Your task to perform on an android device: allow cookies in the chrome app Image 0: 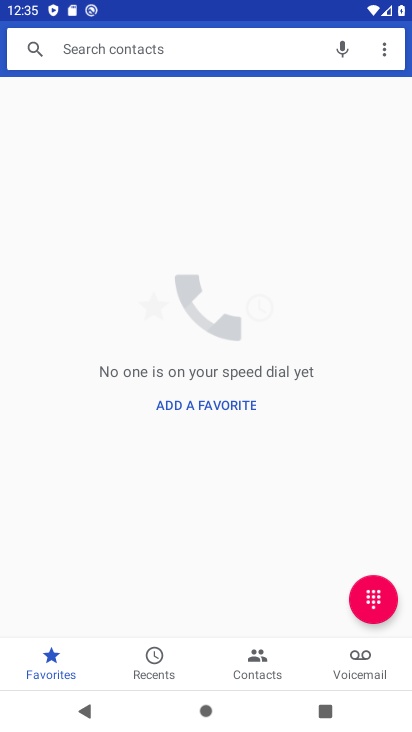
Step 0: click (401, 406)
Your task to perform on an android device: allow cookies in the chrome app Image 1: 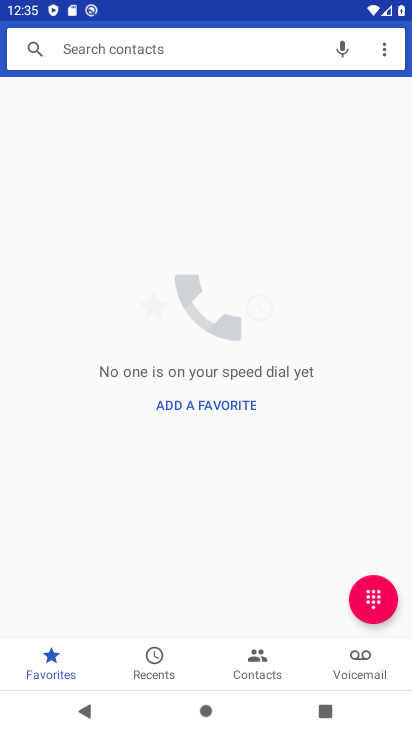
Step 1: press home button
Your task to perform on an android device: allow cookies in the chrome app Image 2: 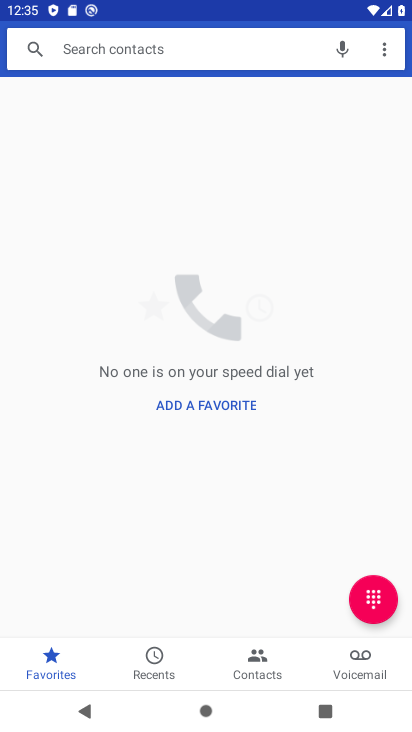
Step 2: drag from (403, 405) to (344, 315)
Your task to perform on an android device: allow cookies in the chrome app Image 3: 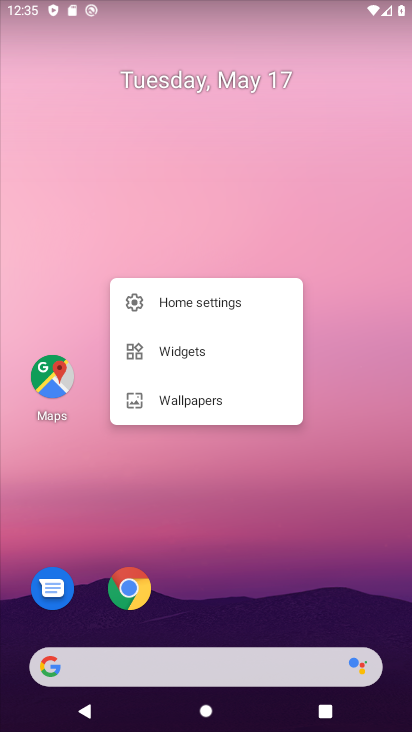
Step 3: drag from (244, 634) to (370, 63)
Your task to perform on an android device: allow cookies in the chrome app Image 4: 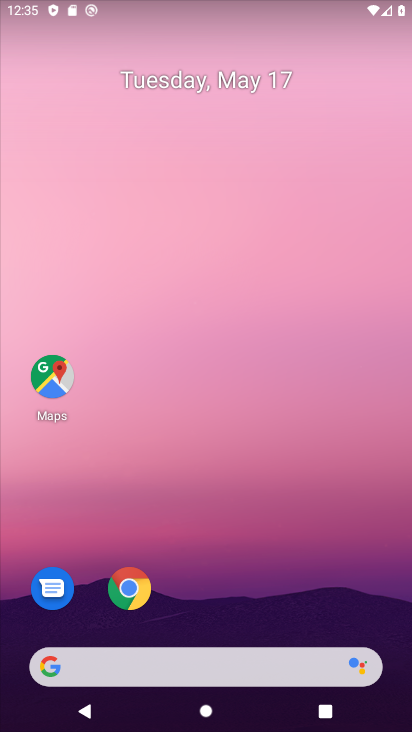
Step 4: drag from (198, 636) to (281, 100)
Your task to perform on an android device: allow cookies in the chrome app Image 5: 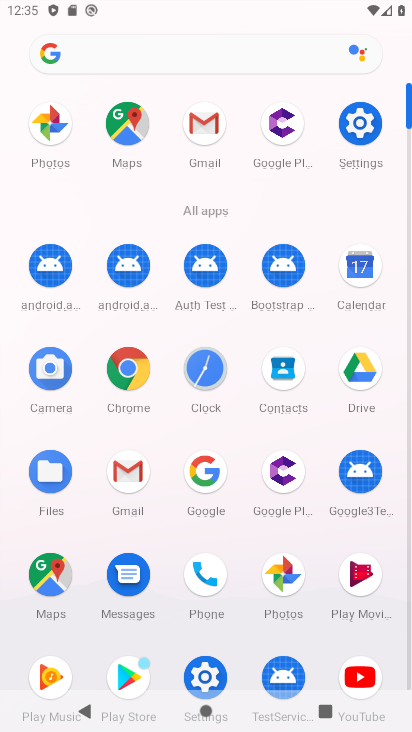
Step 5: click (138, 357)
Your task to perform on an android device: allow cookies in the chrome app Image 6: 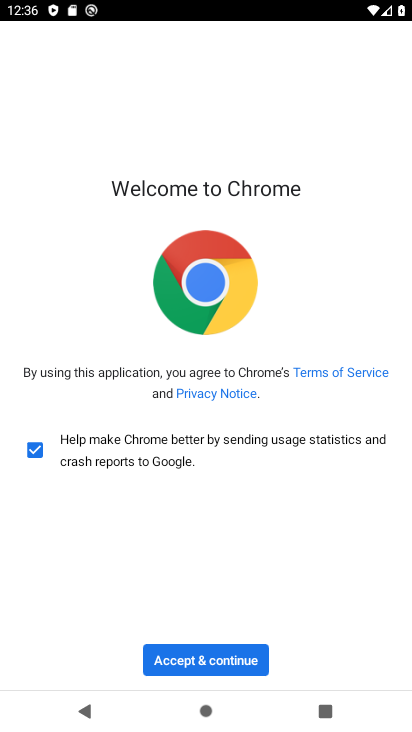
Step 6: click (239, 653)
Your task to perform on an android device: allow cookies in the chrome app Image 7: 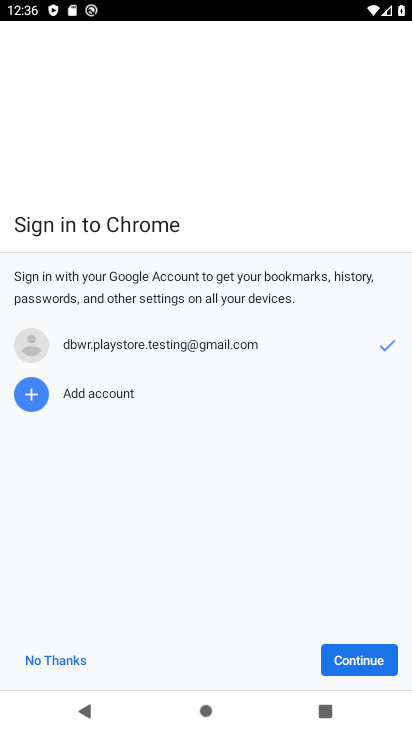
Step 7: click (344, 659)
Your task to perform on an android device: allow cookies in the chrome app Image 8: 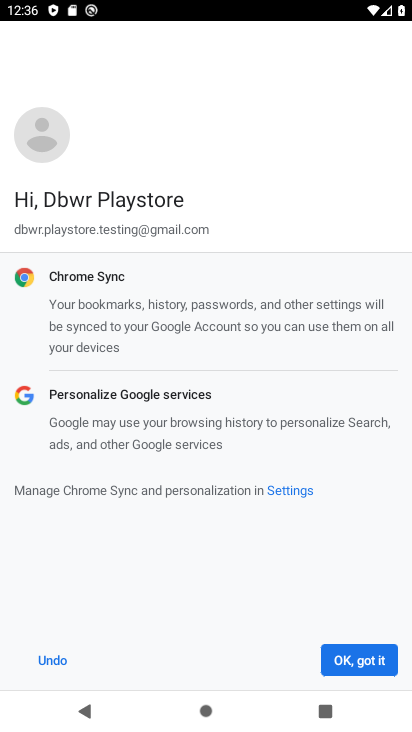
Step 8: click (344, 659)
Your task to perform on an android device: allow cookies in the chrome app Image 9: 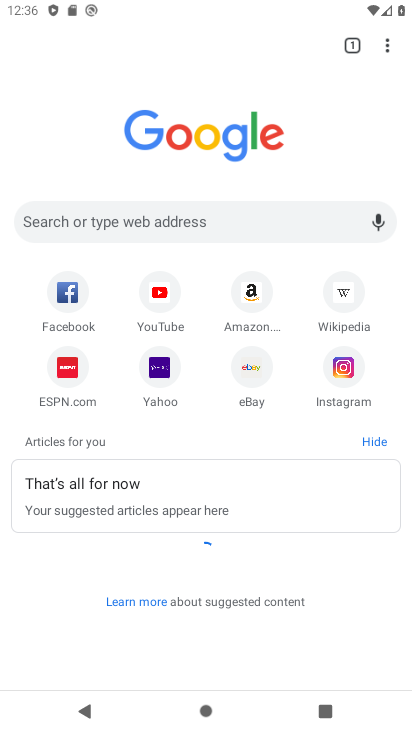
Step 9: drag from (394, 51) to (281, 386)
Your task to perform on an android device: allow cookies in the chrome app Image 10: 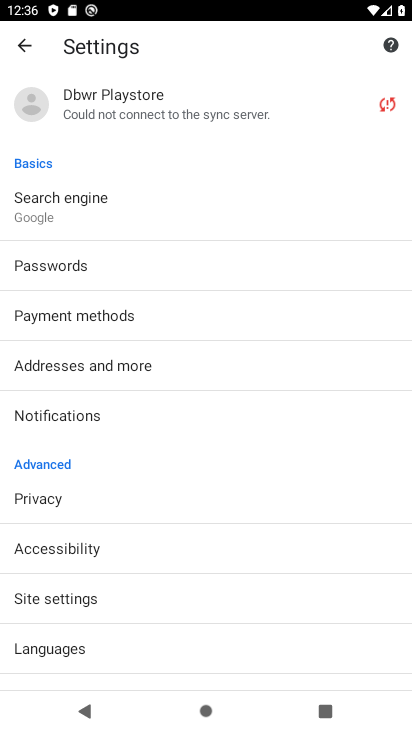
Step 10: drag from (224, 634) to (331, 322)
Your task to perform on an android device: allow cookies in the chrome app Image 11: 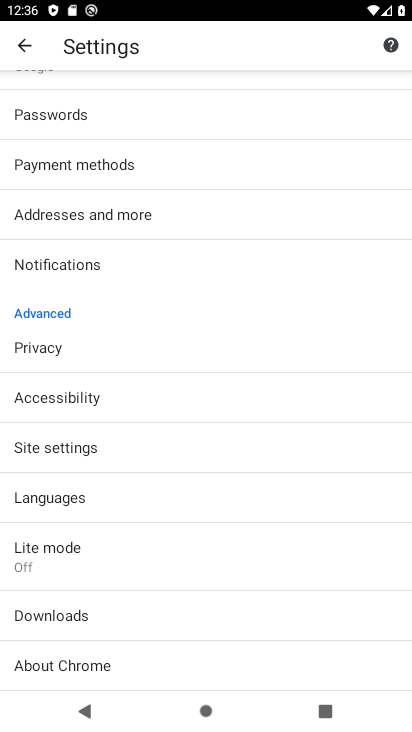
Step 11: click (127, 457)
Your task to perform on an android device: allow cookies in the chrome app Image 12: 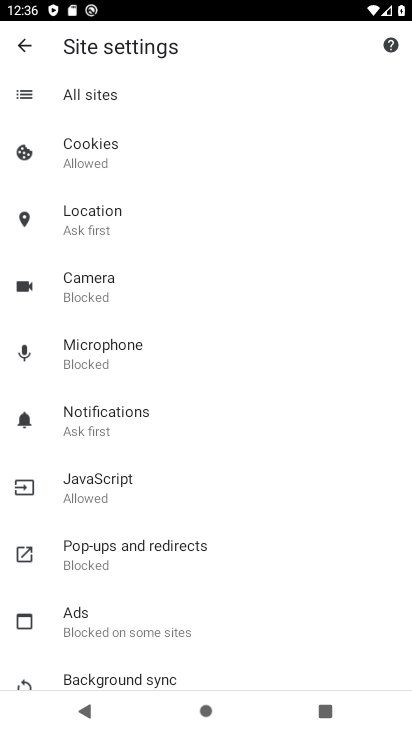
Step 12: task complete